Your task to perform on an android device: see sites visited before in the chrome app Image 0: 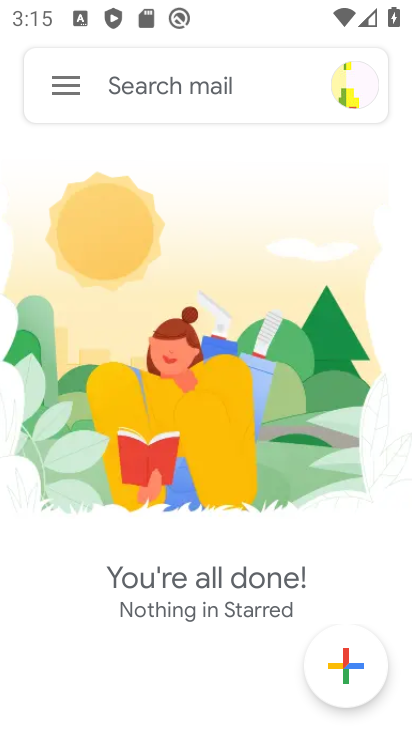
Step 0: press home button
Your task to perform on an android device: see sites visited before in the chrome app Image 1: 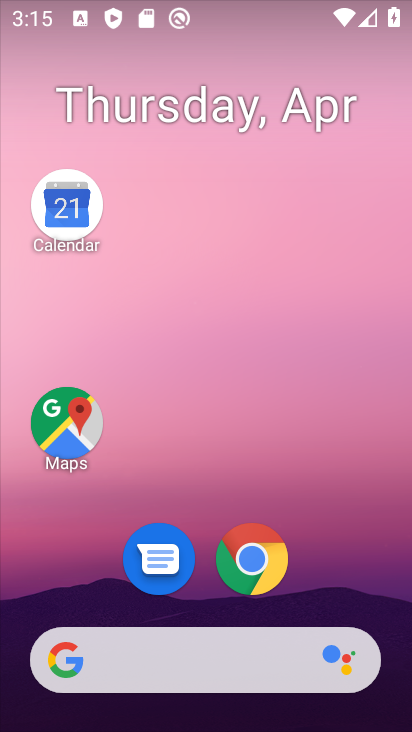
Step 1: click (272, 557)
Your task to perform on an android device: see sites visited before in the chrome app Image 2: 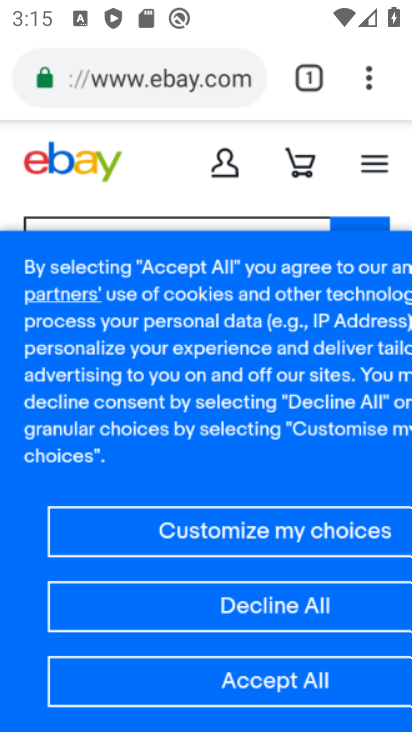
Step 2: click (372, 78)
Your task to perform on an android device: see sites visited before in the chrome app Image 3: 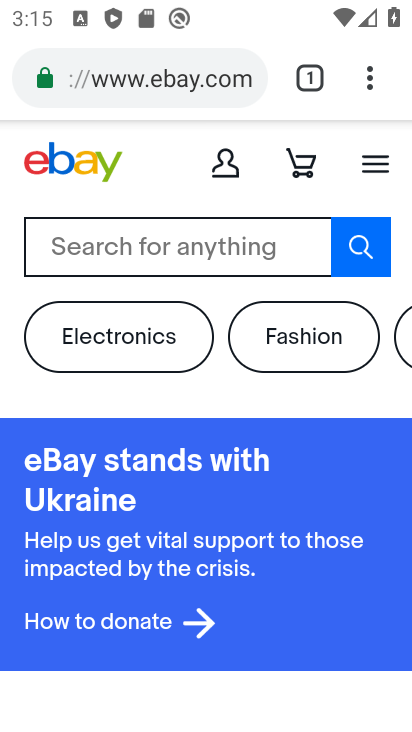
Step 3: click (375, 77)
Your task to perform on an android device: see sites visited before in the chrome app Image 4: 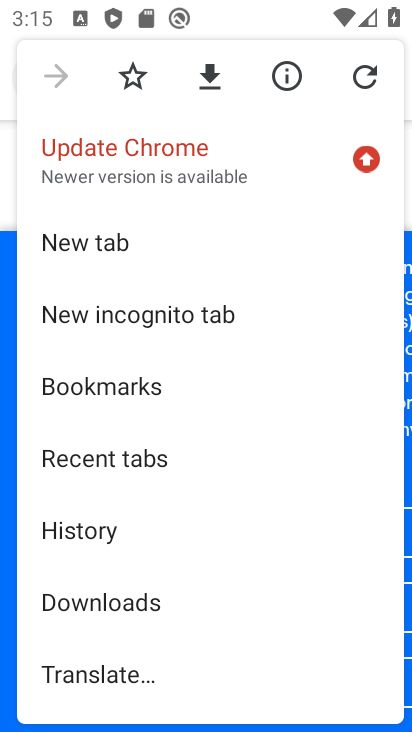
Step 4: click (117, 467)
Your task to perform on an android device: see sites visited before in the chrome app Image 5: 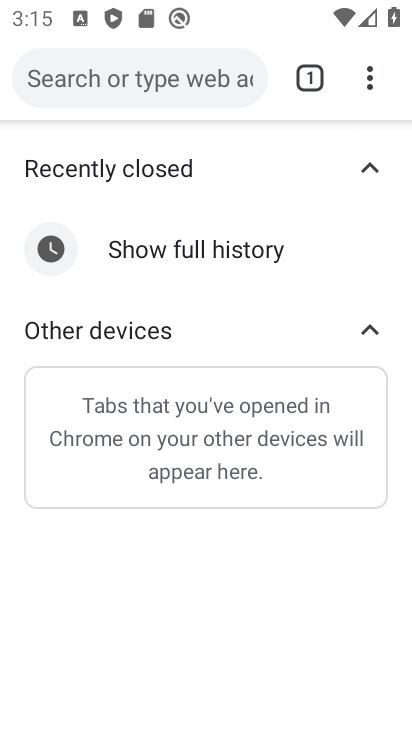
Step 5: task complete